Your task to perform on an android device: Show me recent news Image 0: 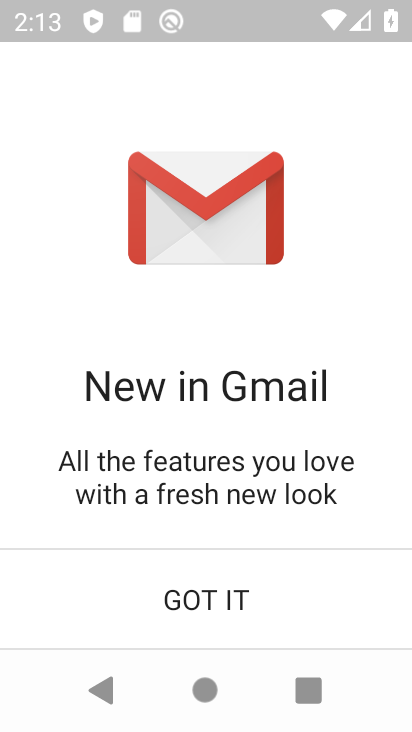
Step 0: press home button
Your task to perform on an android device: Show me recent news Image 1: 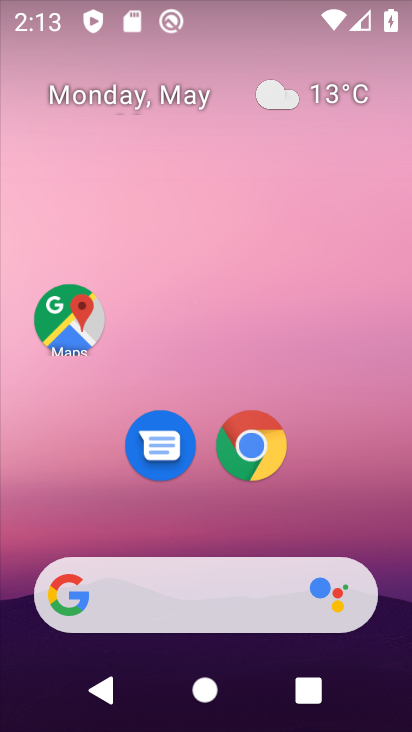
Step 1: task complete